Your task to perform on an android device: add a contact in the contacts app Image 0: 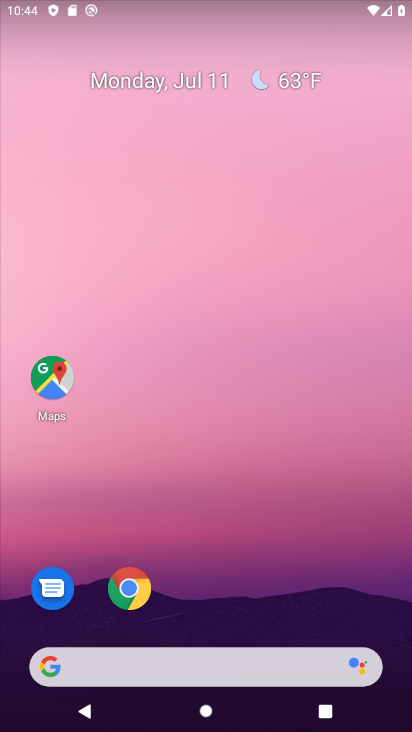
Step 0: drag from (241, 711) to (250, 171)
Your task to perform on an android device: add a contact in the contacts app Image 1: 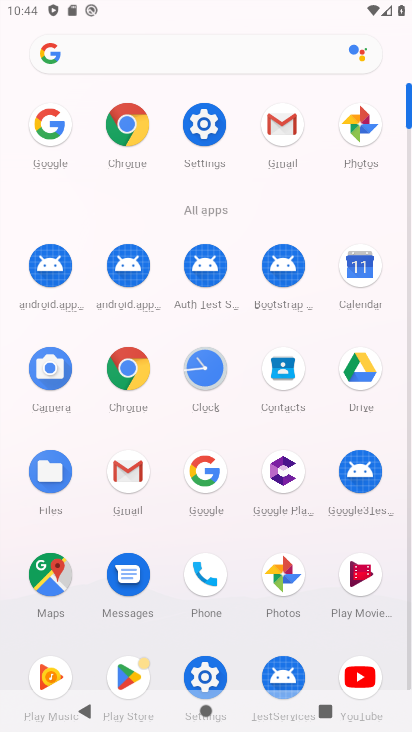
Step 1: click (286, 367)
Your task to perform on an android device: add a contact in the contacts app Image 2: 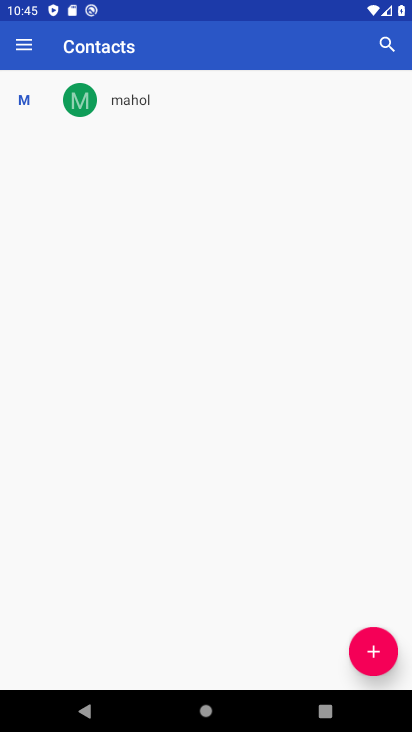
Step 2: click (375, 642)
Your task to perform on an android device: add a contact in the contacts app Image 3: 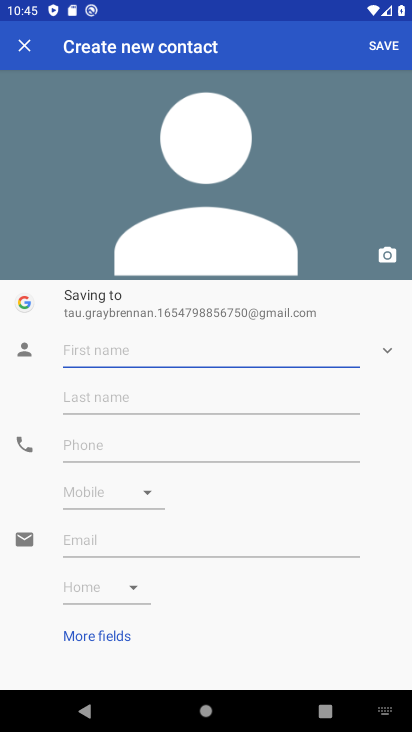
Step 3: type "uuu"
Your task to perform on an android device: add a contact in the contacts app Image 4: 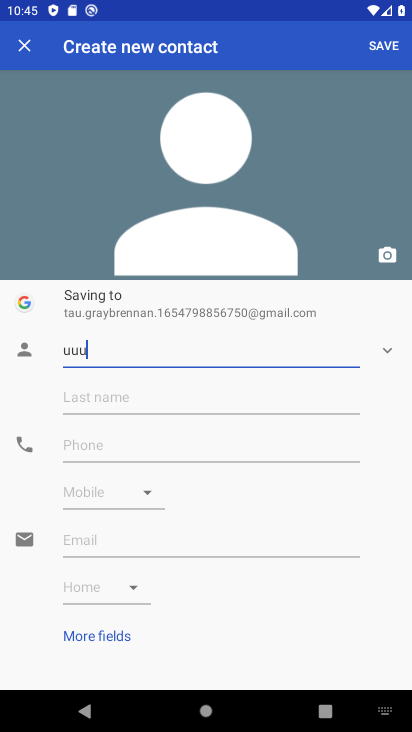
Step 4: type ""
Your task to perform on an android device: add a contact in the contacts app Image 5: 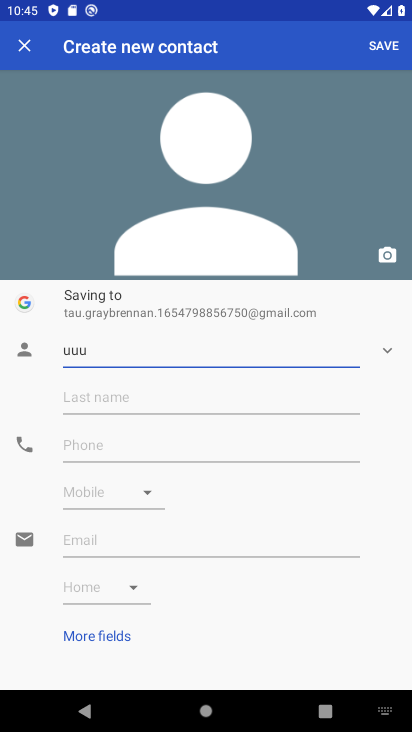
Step 5: click (122, 436)
Your task to perform on an android device: add a contact in the contacts app Image 6: 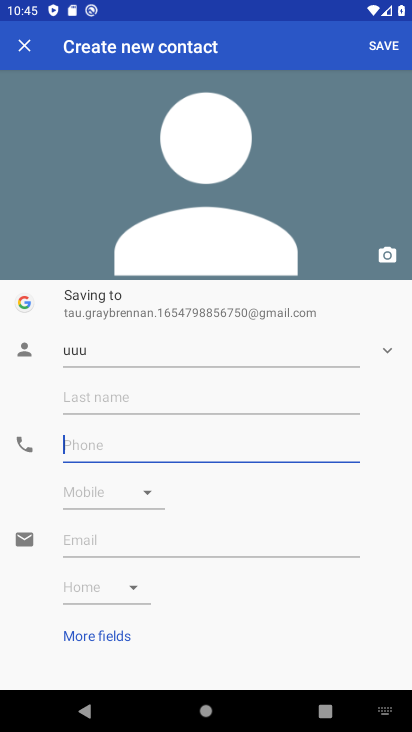
Step 6: type "989898"
Your task to perform on an android device: add a contact in the contacts app Image 7: 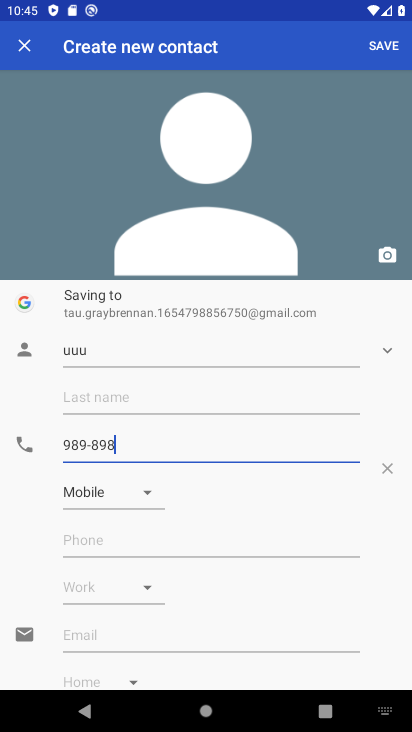
Step 7: type ""
Your task to perform on an android device: add a contact in the contacts app Image 8: 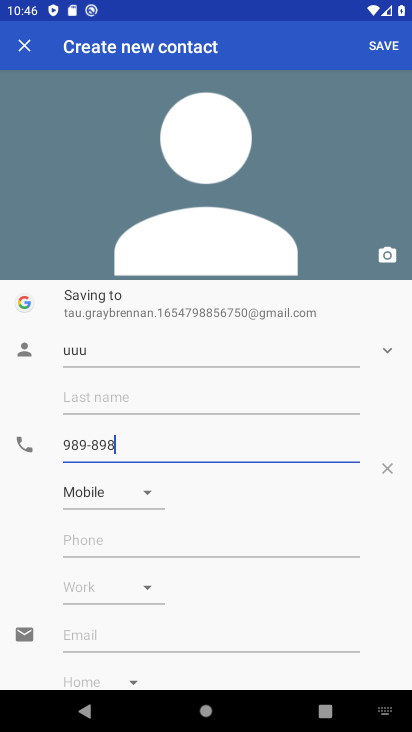
Step 8: click (378, 41)
Your task to perform on an android device: add a contact in the contacts app Image 9: 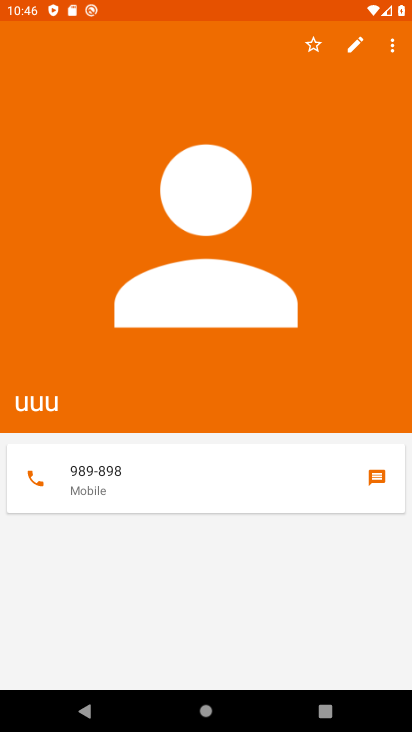
Step 9: task complete